Your task to perform on an android device: turn off translation in the chrome app Image 0: 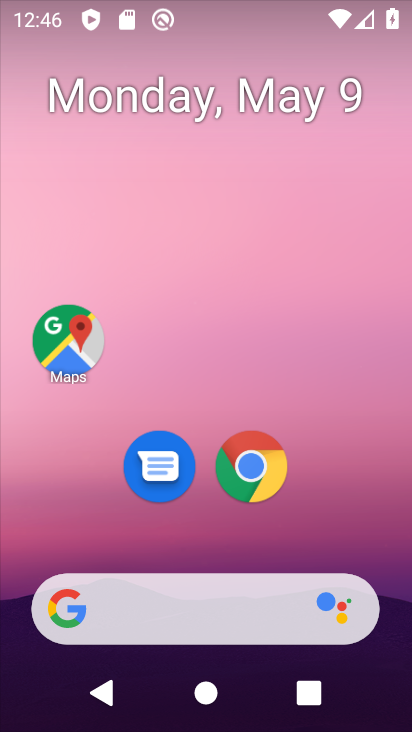
Step 0: click (261, 498)
Your task to perform on an android device: turn off translation in the chrome app Image 1: 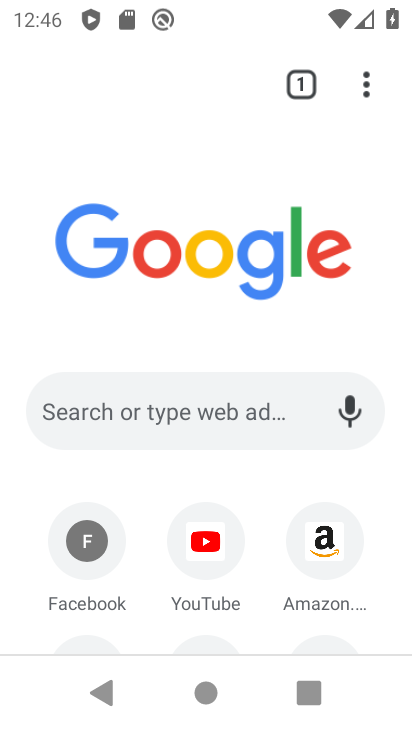
Step 1: click (365, 89)
Your task to perform on an android device: turn off translation in the chrome app Image 2: 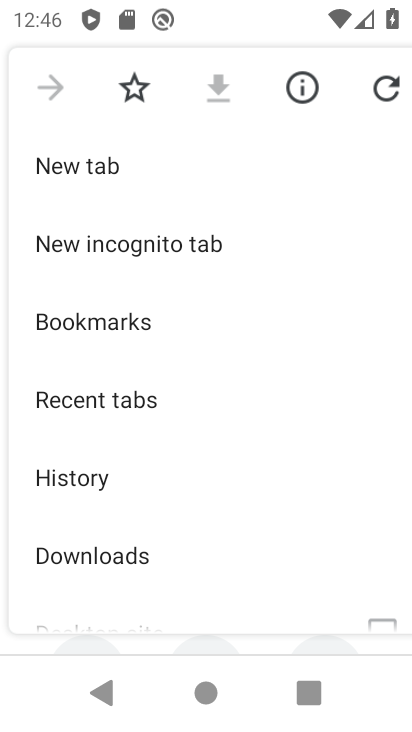
Step 2: drag from (254, 466) to (237, 231)
Your task to perform on an android device: turn off translation in the chrome app Image 3: 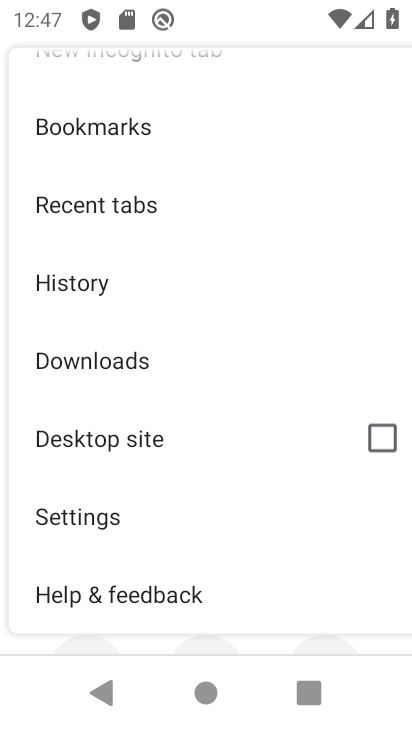
Step 3: drag from (172, 507) to (175, 415)
Your task to perform on an android device: turn off translation in the chrome app Image 4: 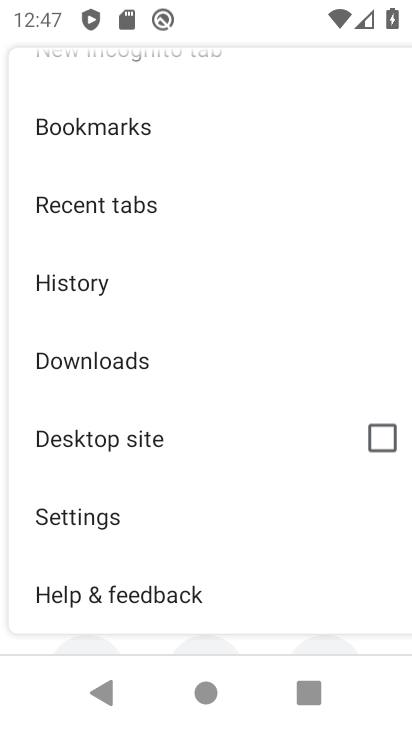
Step 4: click (114, 514)
Your task to perform on an android device: turn off translation in the chrome app Image 5: 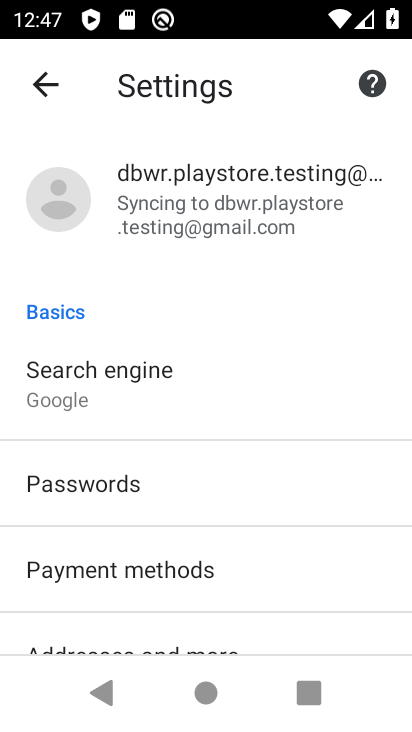
Step 5: task complete